Your task to perform on an android device: clear all cookies in the chrome app Image 0: 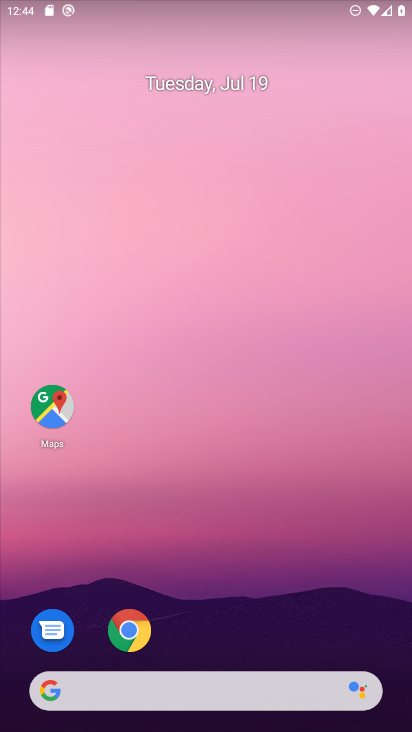
Step 0: press home button
Your task to perform on an android device: clear all cookies in the chrome app Image 1: 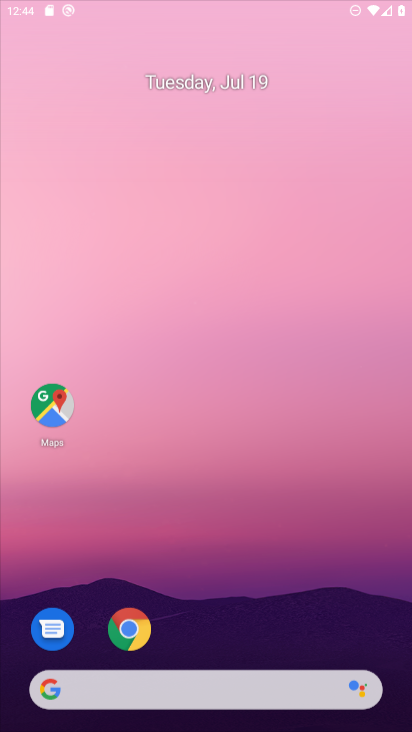
Step 1: drag from (226, 497) to (291, 37)
Your task to perform on an android device: clear all cookies in the chrome app Image 2: 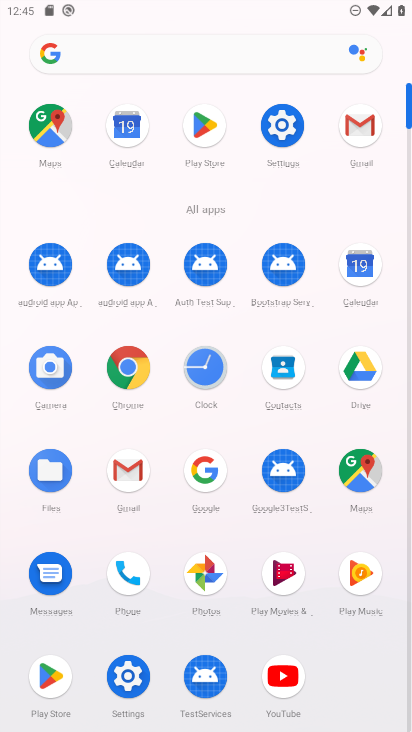
Step 2: click (129, 373)
Your task to perform on an android device: clear all cookies in the chrome app Image 3: 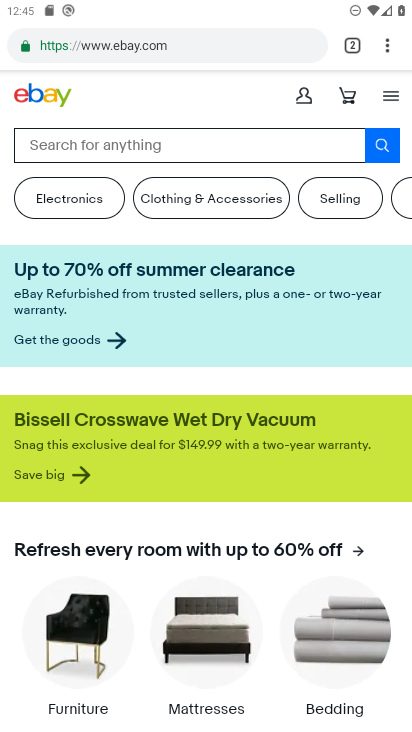
Step 3: drag from (386, 48) to (257, 550)
Your task to perform on an android device: clear all cookies in the chrome app Image 4: 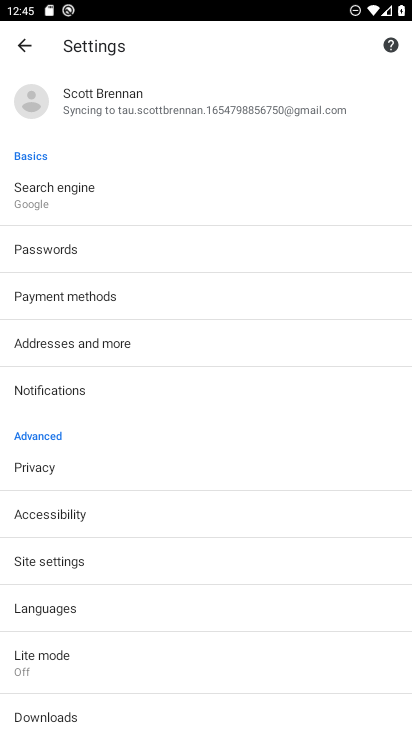
Step 4: click (33, 468)
Your task to perform on an android device: clear all cookies in the chrome app Image 5: 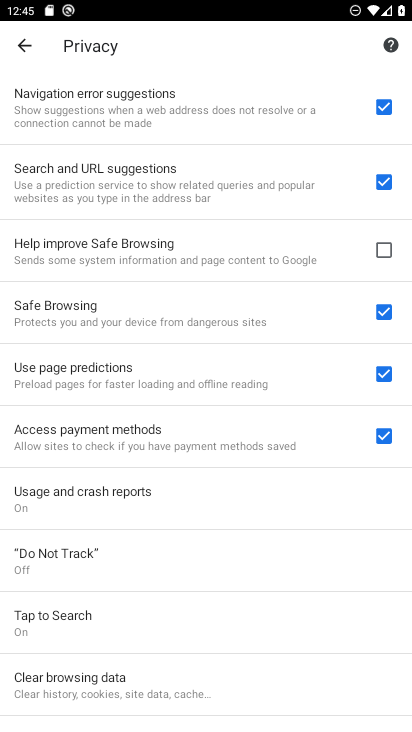
Step 5: drag from (172, 640) to (309, 97)
Your task to perform on an android device: clear all cookies in the chrome app Image 6: 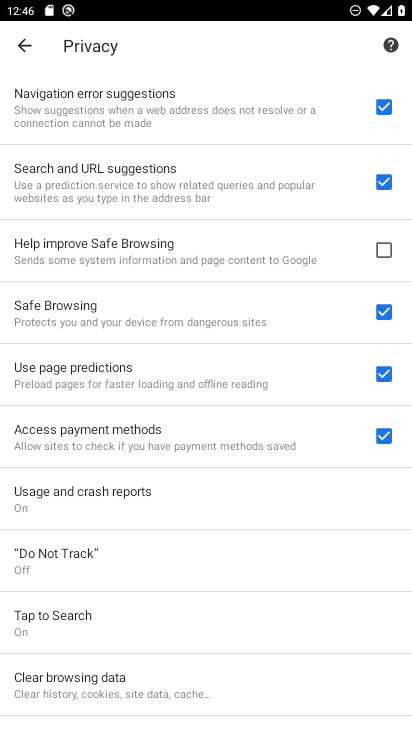
Step 6: click (160, 693)
Your task to perform on an android device: clear all cookies in the chrome app Image 7: 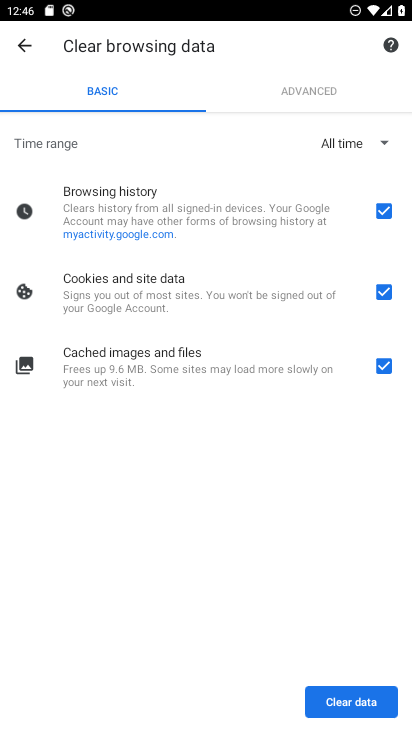
Step 7: click (384, 206)
Your task to perform on an android device: clear all cookies in the chrome app Image 8: 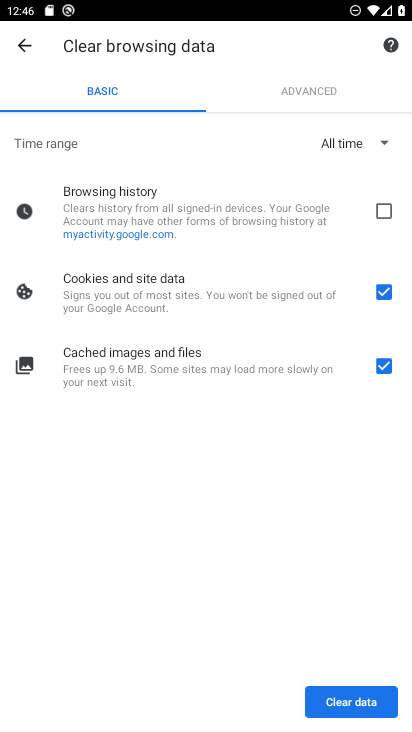
Step 8: click (384, 363)
Your task to perform on an android device: clear all cookies in the chrome app Image 9: 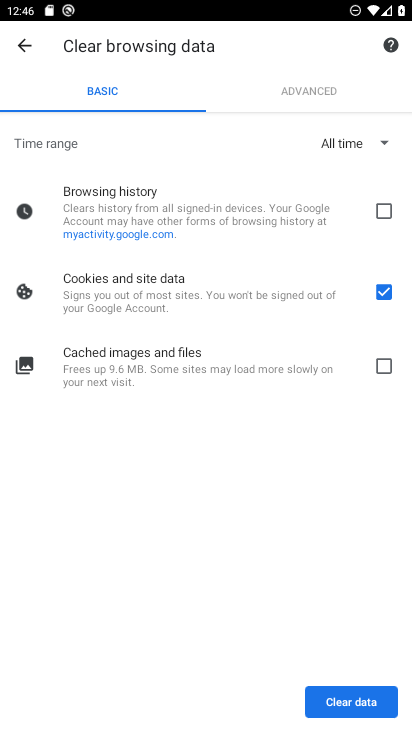
Step 9: click (361, 706)
Your task to perform on an android device: clear all cookies in the chrome app Image 10: 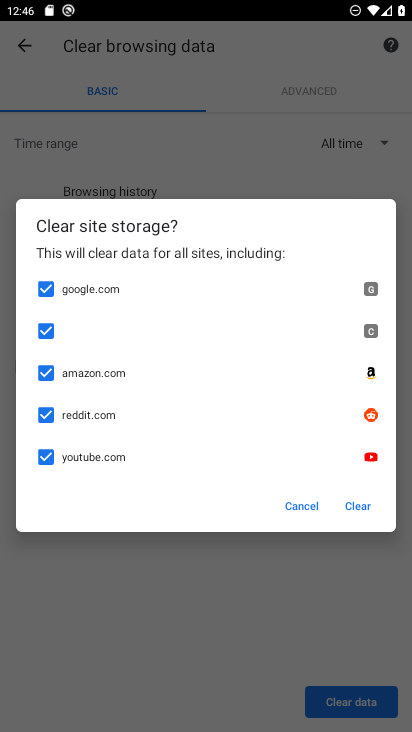
Step 10: click (356, 510)
Your task to perform on an android device: clear all cookies in the chrome app Image 11: 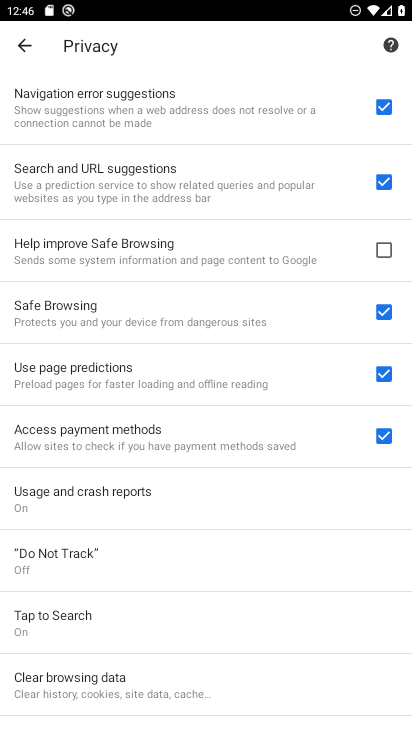
Step 11: task complete